Your task to perform on an android device: turn off javascript in the chrome app Image 0: 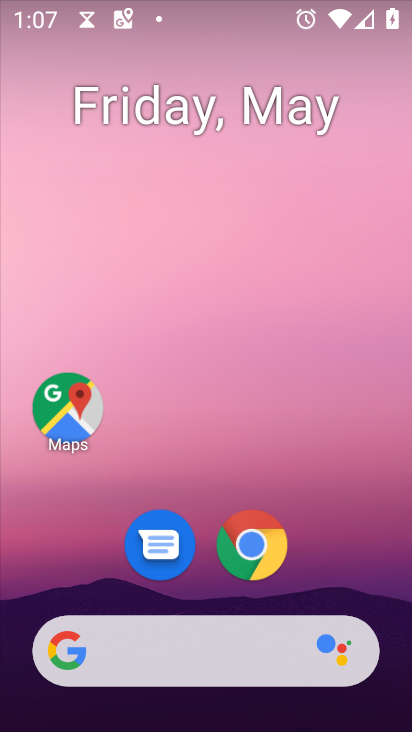
Step 0: click (250, 544)
Your task to perform on an android device: turn off javascript in the chrome app Image 1: 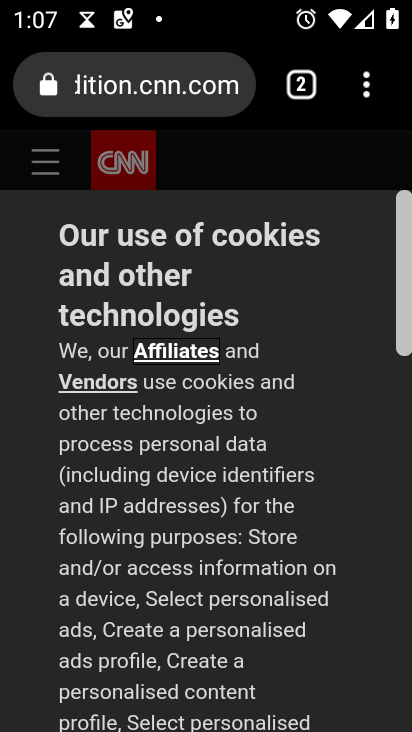
Step 1: click (372, 71)
Your task to perform on an android device: turn off javascript in the chrome app Image 2: 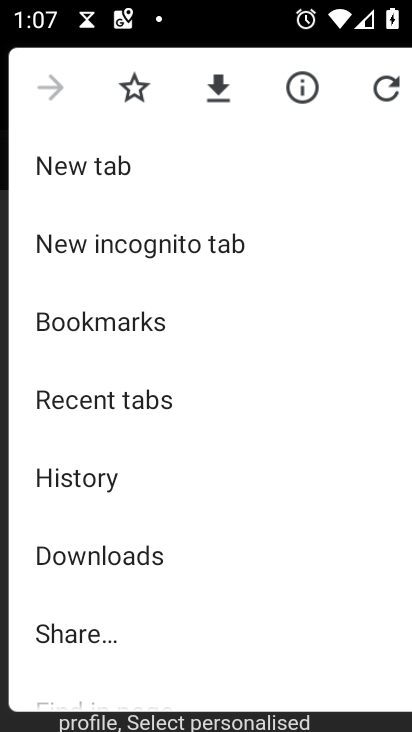
Step 2: drag from (184, 543) to (212, 209)
Your task to perform on an android device: turn off javascript in the chrome app Image 3: 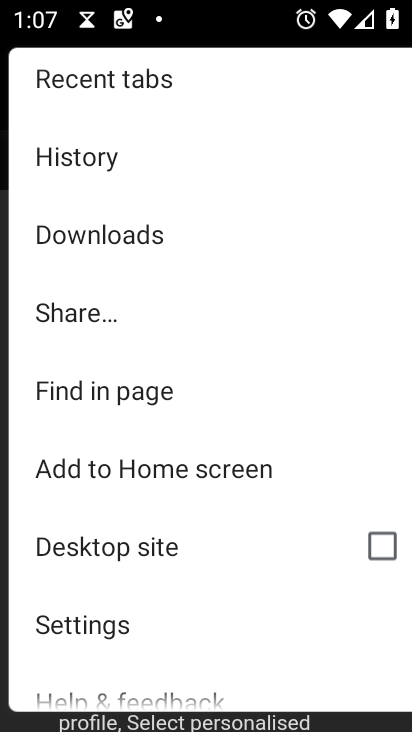
Step 3: click (94, 616)
Your task to perform on an android device: turn off javascript in the chrome app Image 4: 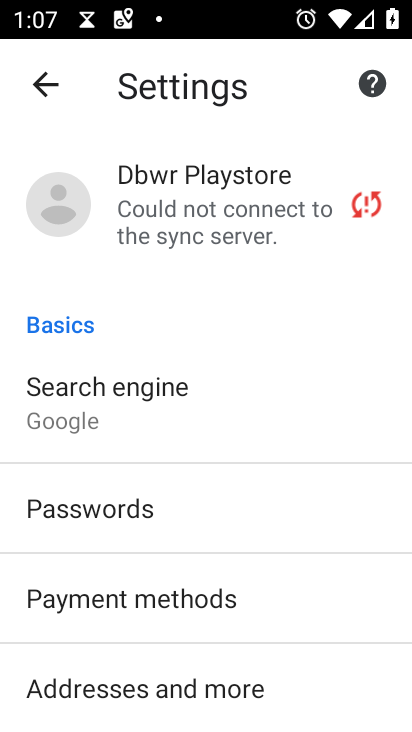
Step 4: drag from (234, 636) to (273, 262)
Your task to perform on an android device: turn off javascript in the chrome app Image 5: 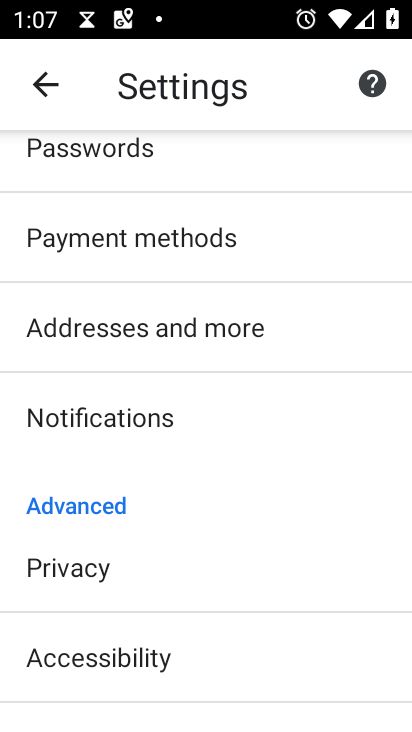
Step 5: drag from (232, 641) to (264, 245)
Your task to perform on an android device: turn off javascript in the chrome app Image 6: 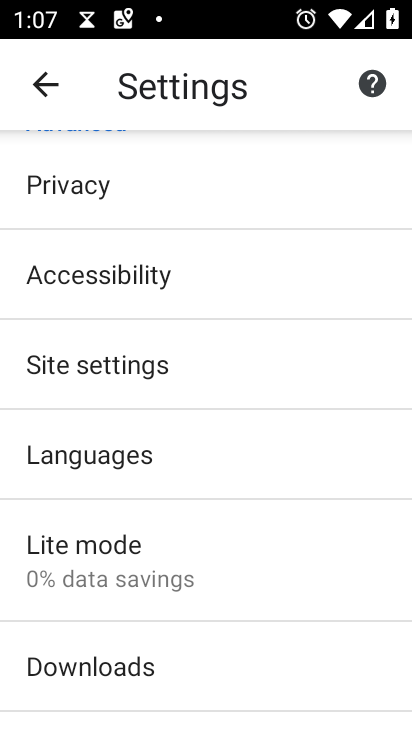
Step 6: click (176, 366)
Your task to perform on an android device: turn off javascript in the chrome app Image 7: 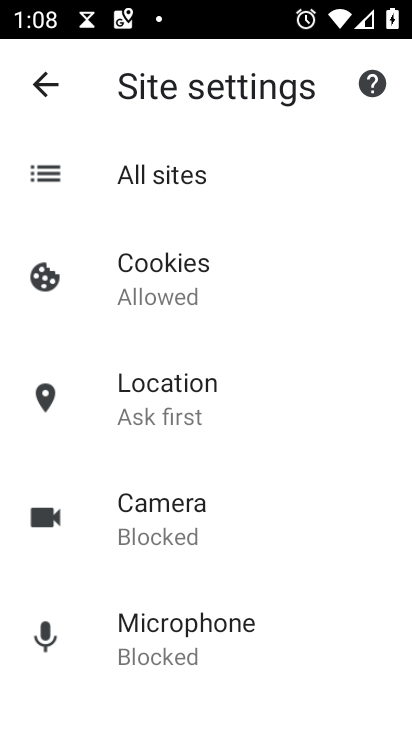
Step 7: drag from (278, 589) to (240, 287)
Your task to perform on an android device: turn off javascript in the chrome app Image 8: 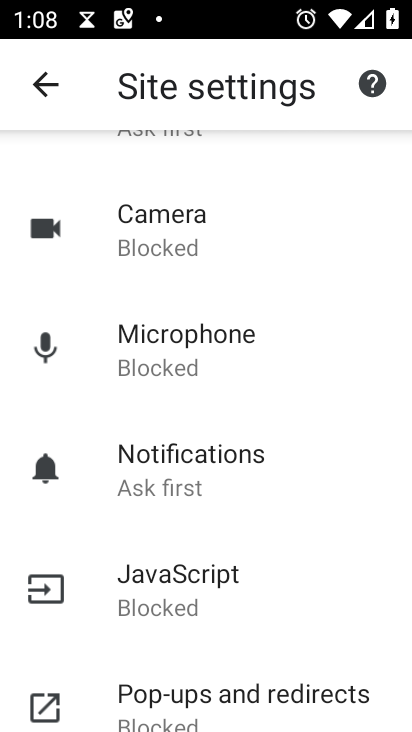
Step 8: click (207, 589)
Your task to perform on an android device: turn off javascript in the chrome app Image 9: 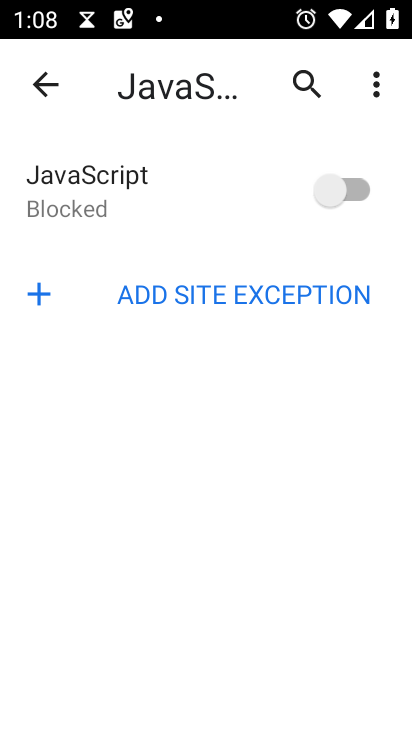
Step 9: task complete